Your task to perform on an android device: open a bookmark in the chrome app Image 0: 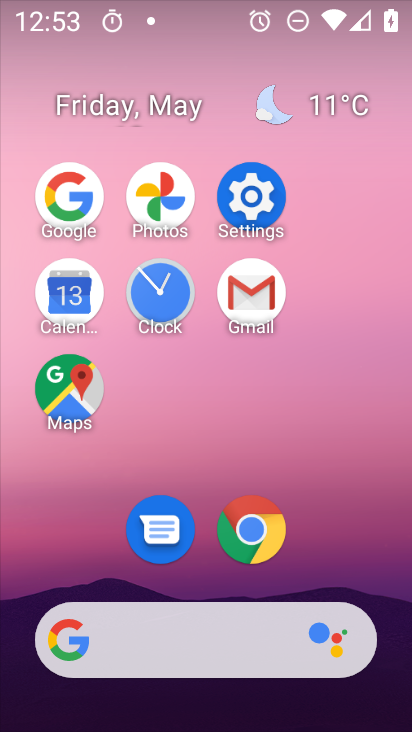
Step 0: click (241, 543)
Your task to perform on an android device: open a bookmark in the chrome app Image 1: 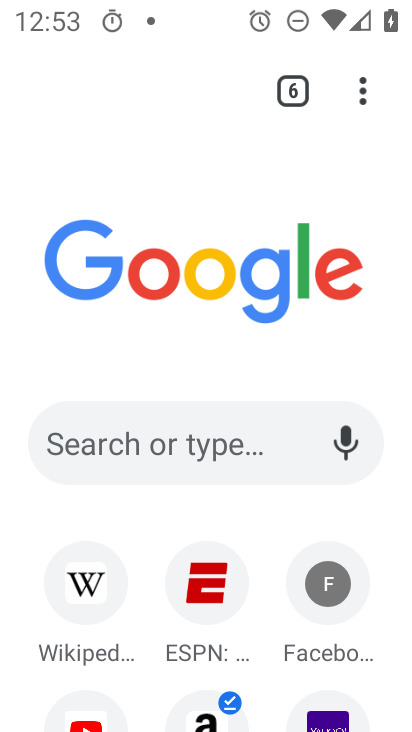
Step 1: click (360, 95)
Your task to perform on an android device: open a bookmark in the chrome app Image 2: 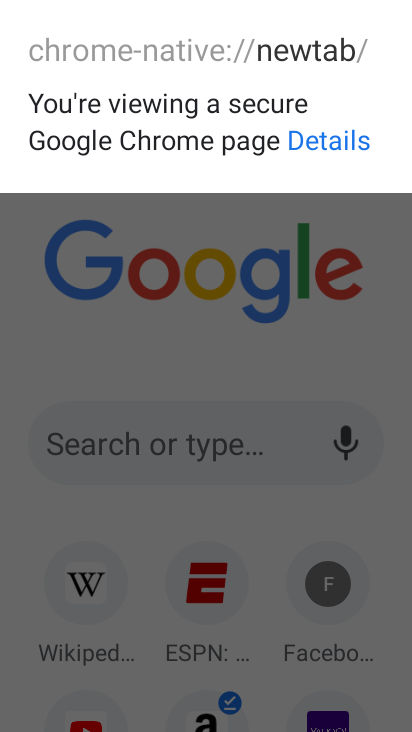
Step 2: click (374, 295)
Your task to perform on an android device: open a bookmark in the chrome app Image 3: 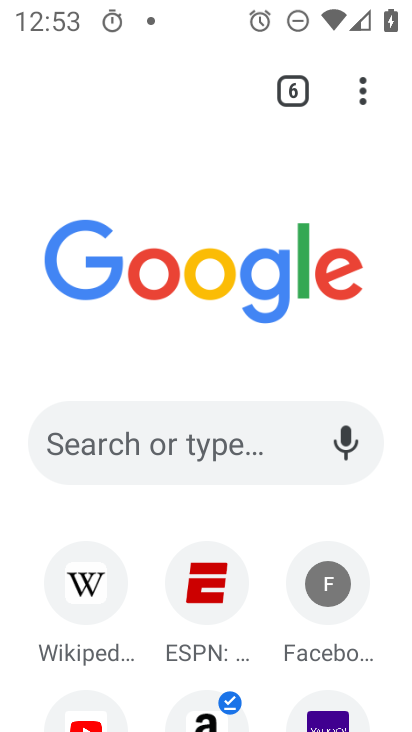
Step 3: click (368, 92)
Your task to perform on an android device: open a bookmark in the chrome app Image 4: 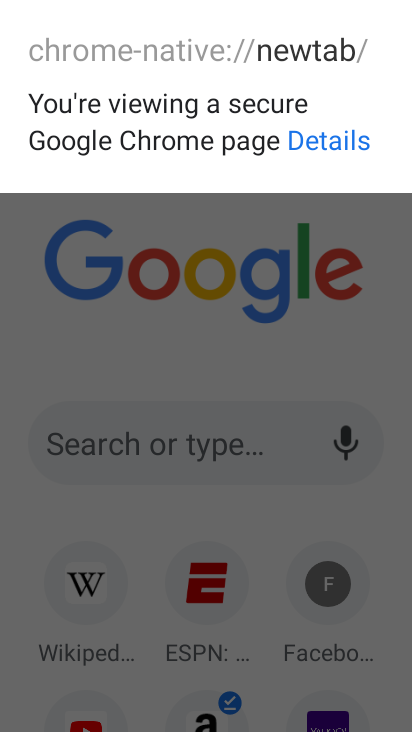
Step 4: click (361, 279)
Your task to perform on an android device: open a bookmark in the chrome app Image 5: 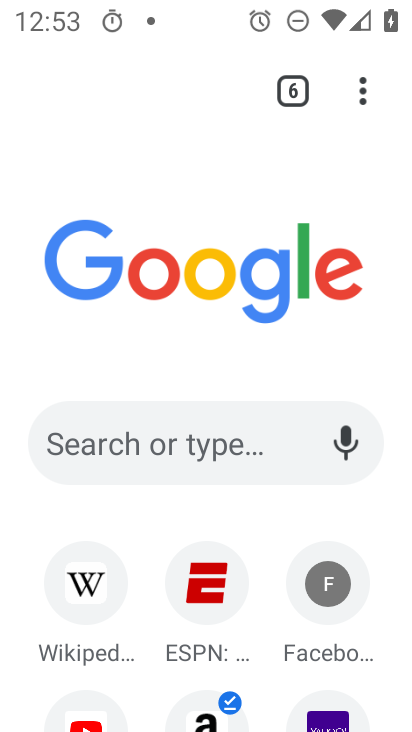
Step 5: click (358, 99)
Your task to perform on an android device: open a bookmark in the chrome app Image 6: 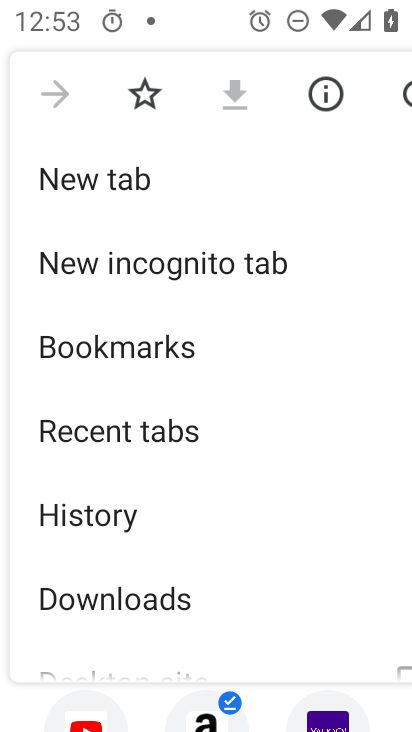
Step 6: drag from (147, 563) to (201, 363)
Your task to perform on an android device: open a bookmark in the chrome app Image 7: 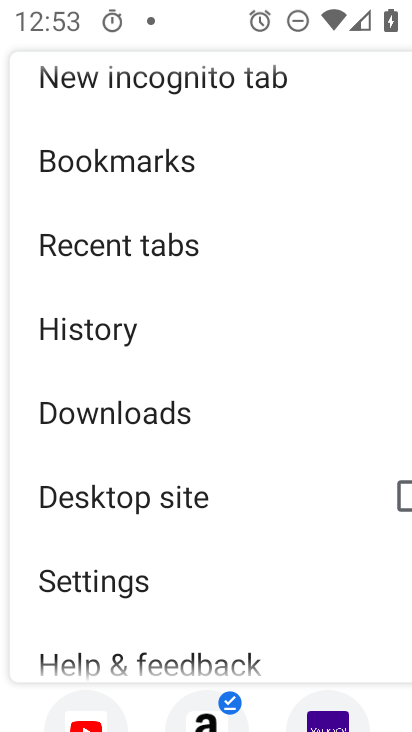
Step 7: click (115, 166)
Your task to perform on an android device: open a bookmark in the chrome app Image 8: 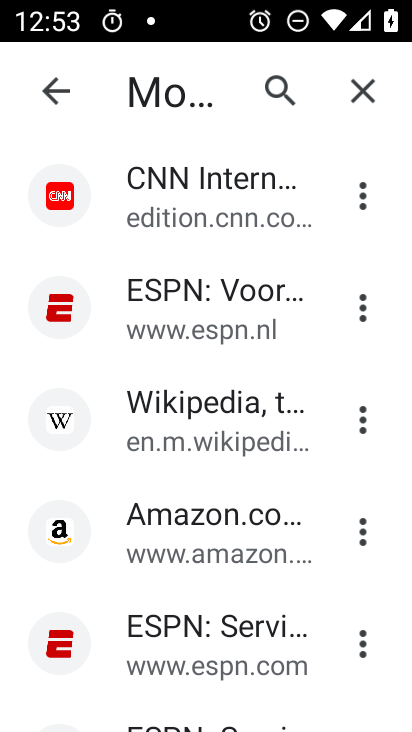
Step 8: task complete